Your task to perform on an android device: Open internet settings Image 0: 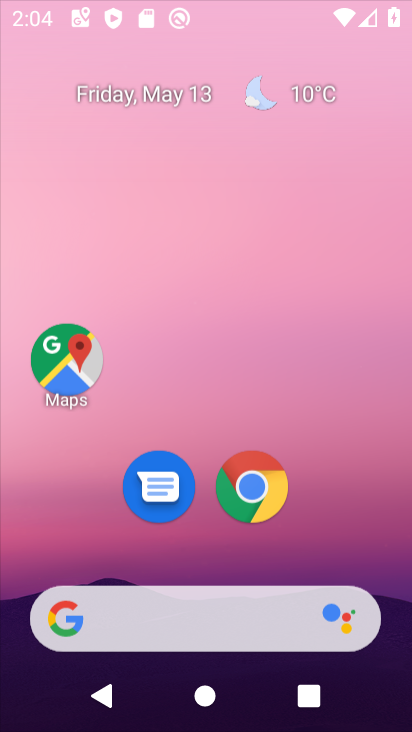
Step 0: click (247, 209)
Your task to perform on an android device: Open internet settings Image 1: 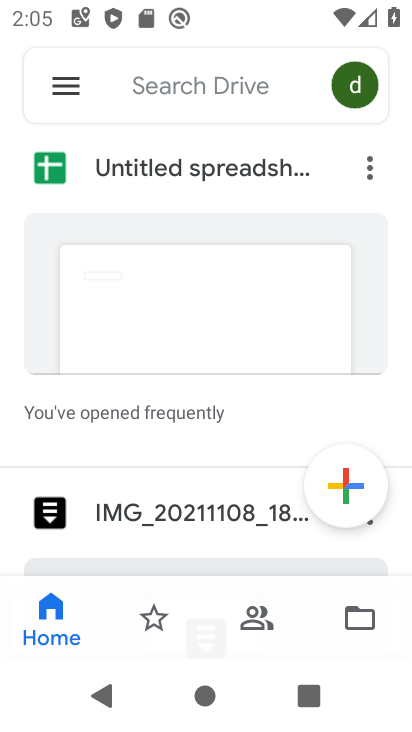
Step 1: press home button
Your task to perform on an android device: Open internet settings Image 2: 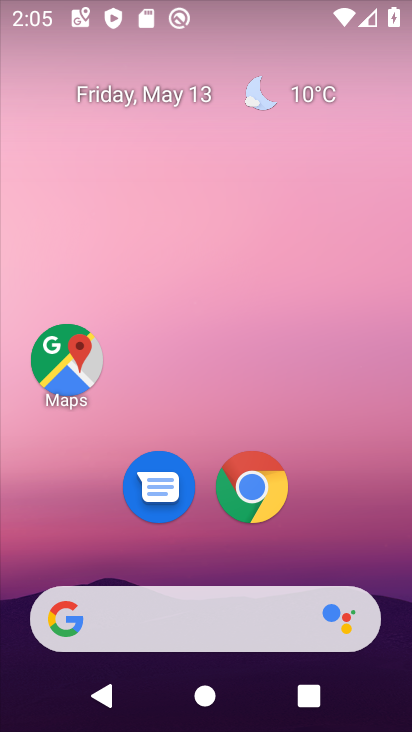
Step 2: drag from (208, 534) to (302, 139)
Your task to perform on an android device: Open internet settings Image 3: 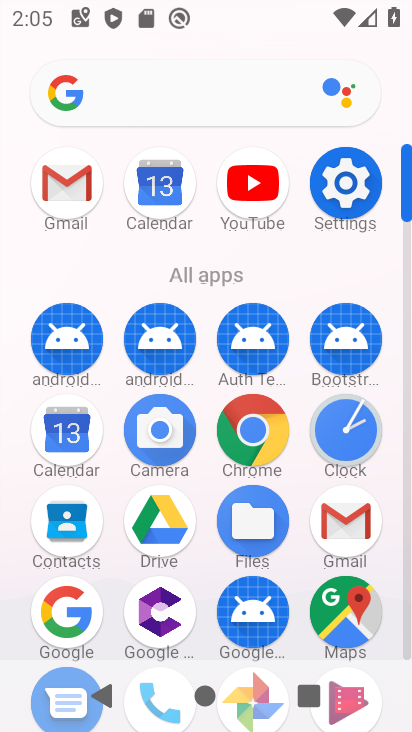
Step 3: click (345, 182)
Your task to perform on an android device: Open internet settings Image 4: 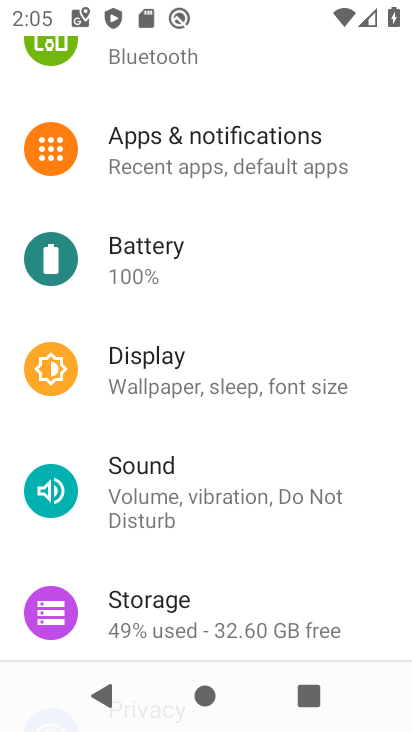
Step 4: drag from (220, 184) to (266, 527)
Your task to perform on an android device: Open internet settings Image 5: 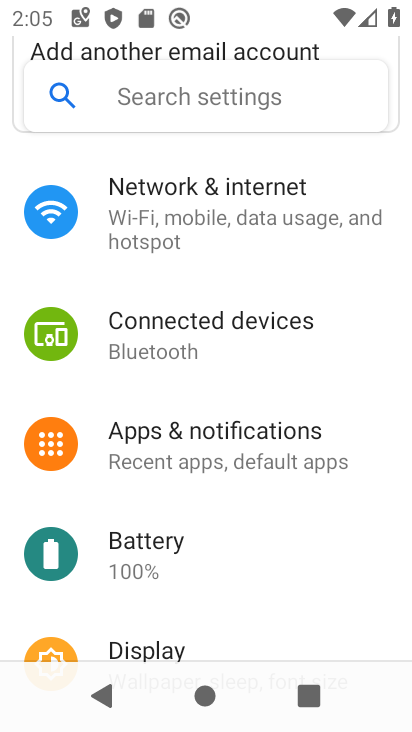
Step 5: drag from (207, 197) to (235, 381)
Your task to perform on an android device: Open internet settings Image 6: 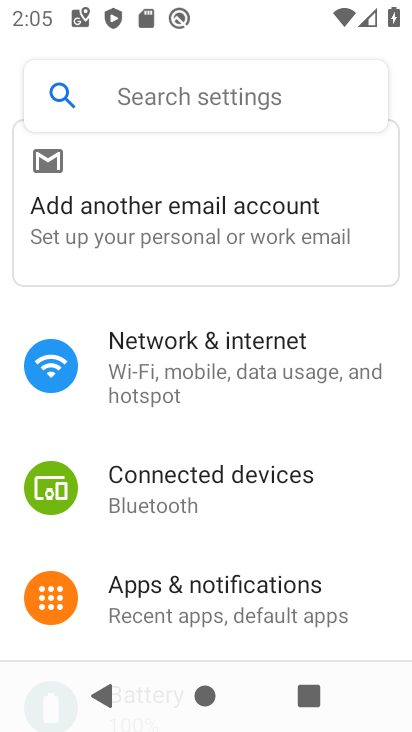
Step 6: click (277, 358)
Your task to perform on an android device: Open internet settings Image 7: 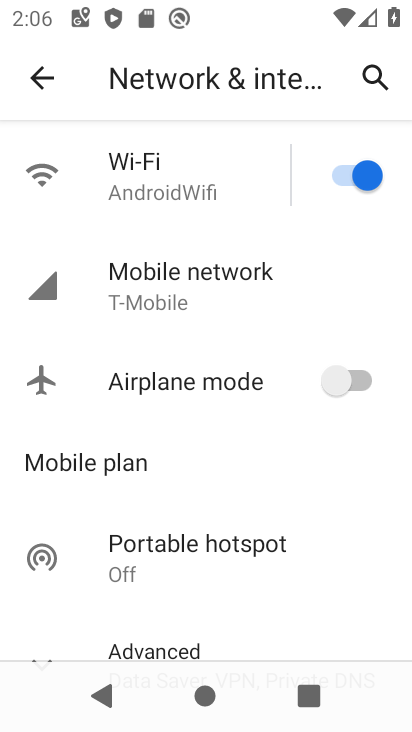
Step 7: task complete